Your task to perform on an android device: open app "YouTube Kids" Image 0: 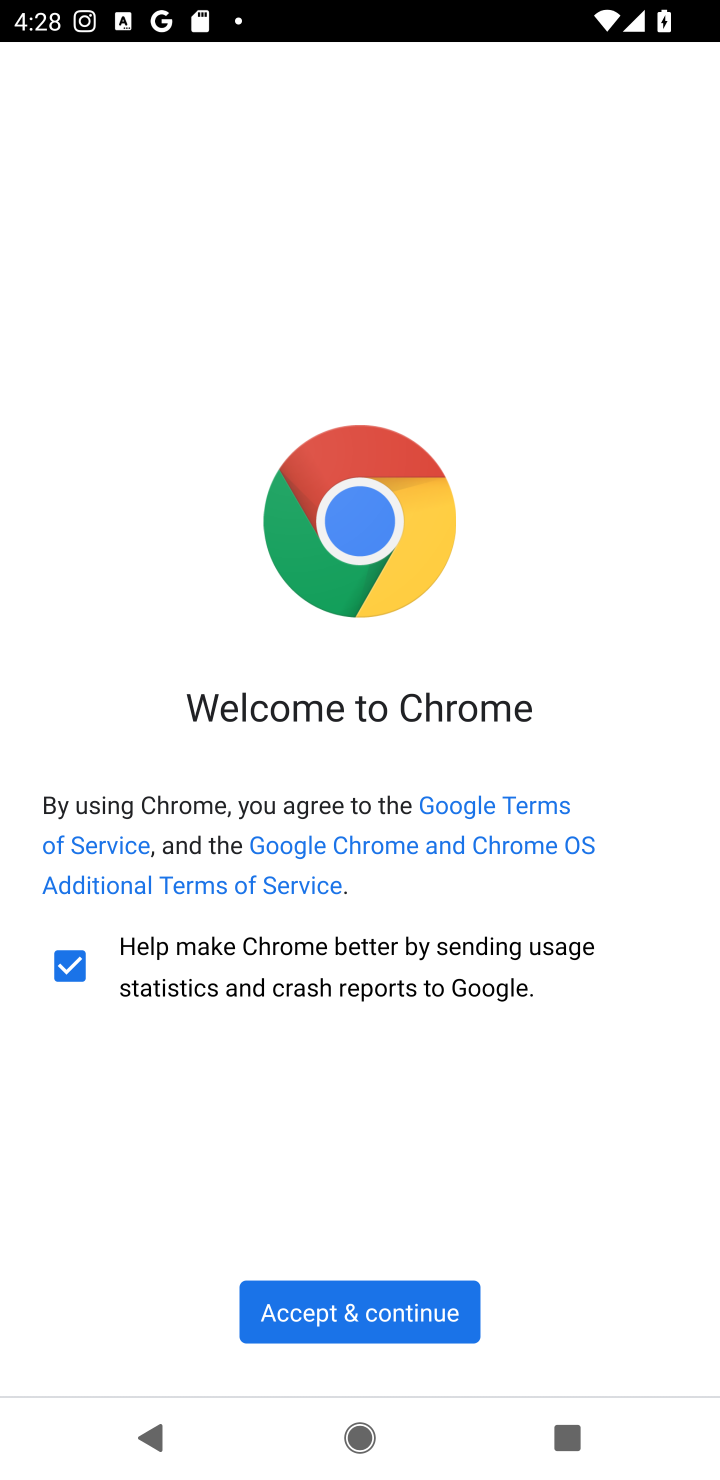
Step 0: press home button
Your task to perform on an android device: open app "YouTube Kids" Image 1: 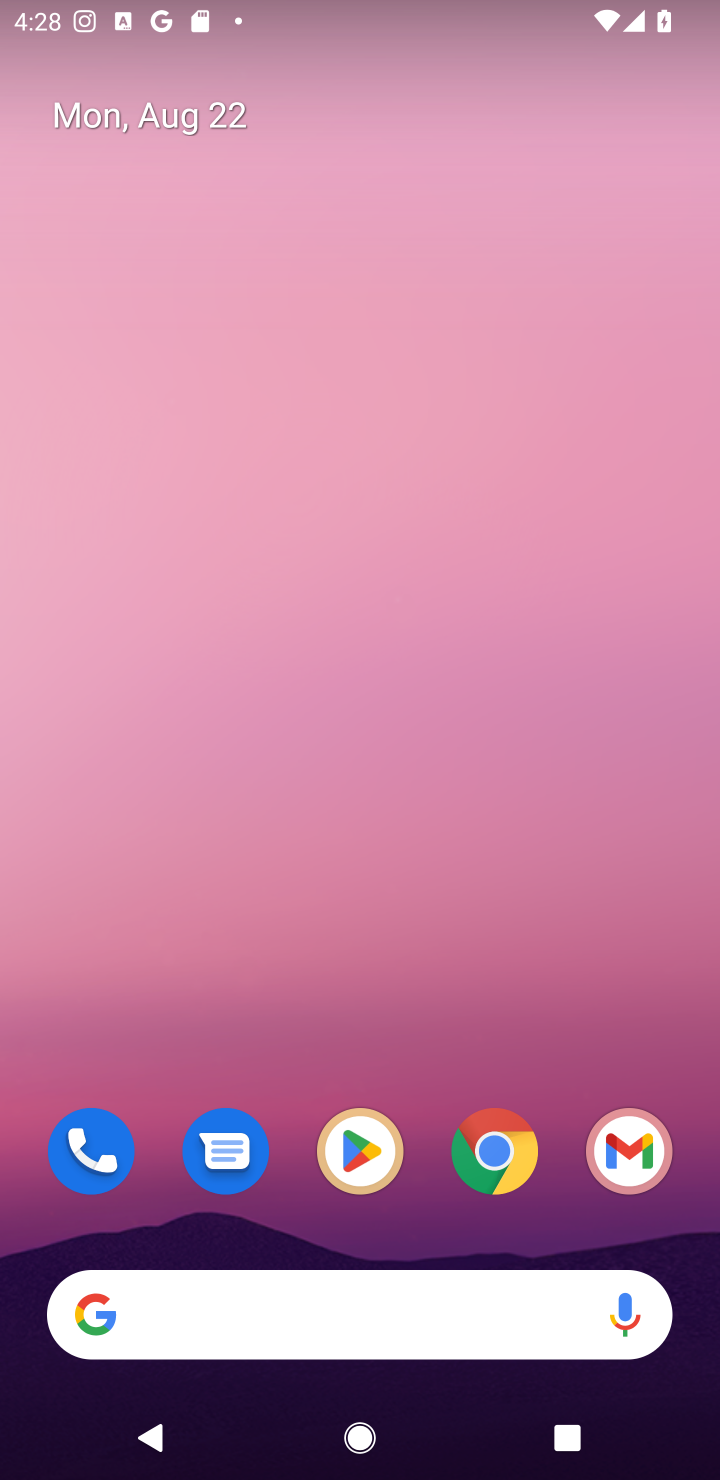
Step 1: click (347, 1153)
Your task to perform on an android device: open app "YouTube Kids" Image 2: 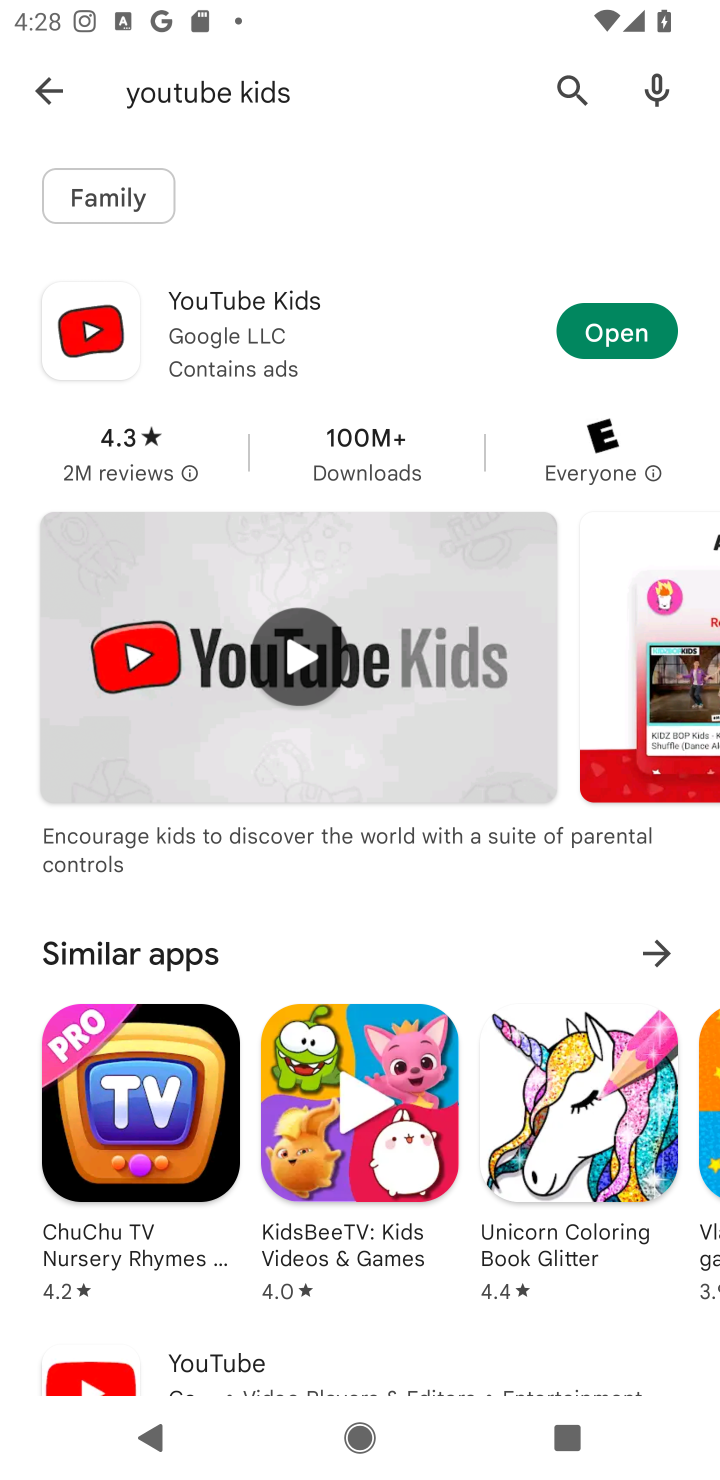
Step 2: click (560, 77)
Your task to perform on an android device: open app "YouTube Kids" Image 3: 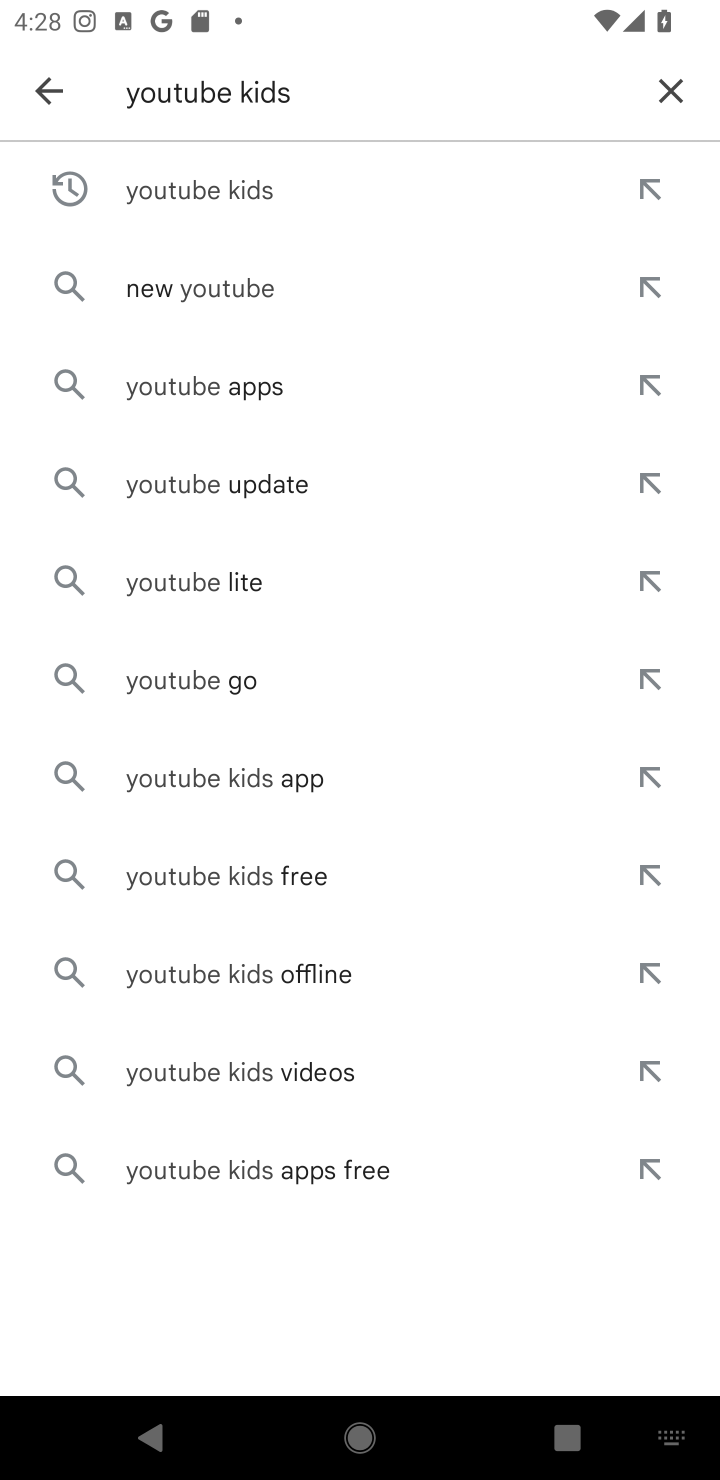
Step 3: click (658, 93)
Your task to perform on an android device: open app "YouTube Kids" Image 4: 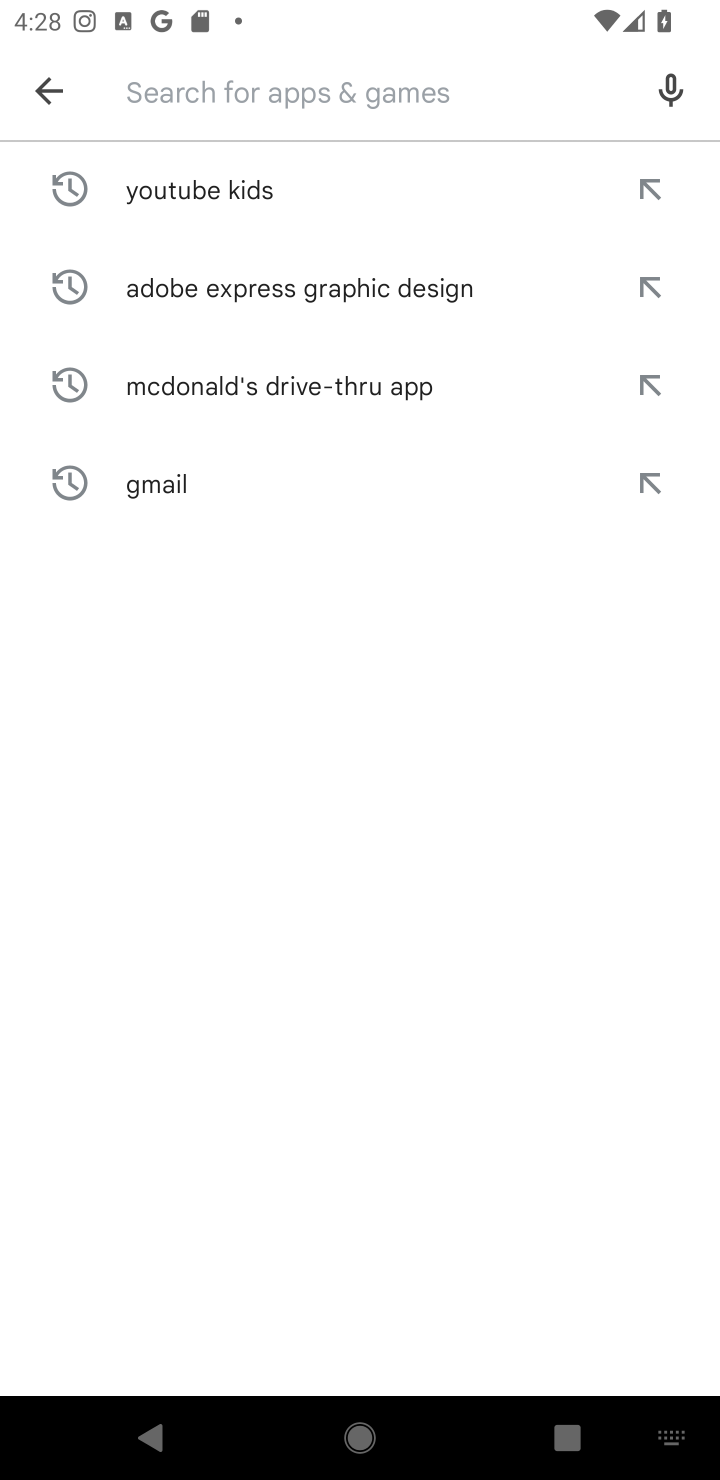
Step 4: type "YouTube Kids"
Your task to perform on an android device: open app "YouTube Kids" Image 5: 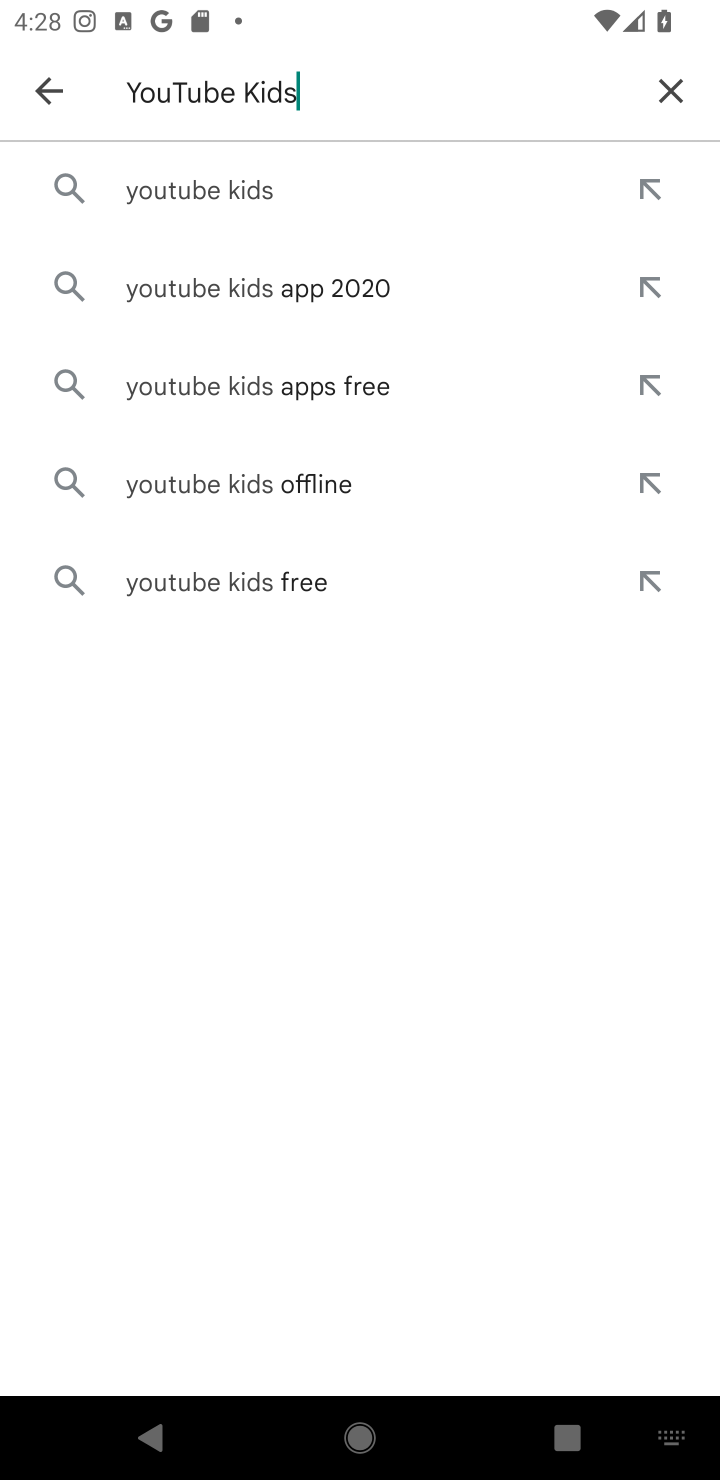
Step 5: click (196, 181)
Your task to perform on an android device: open app "YouTube Kids" Image 6: 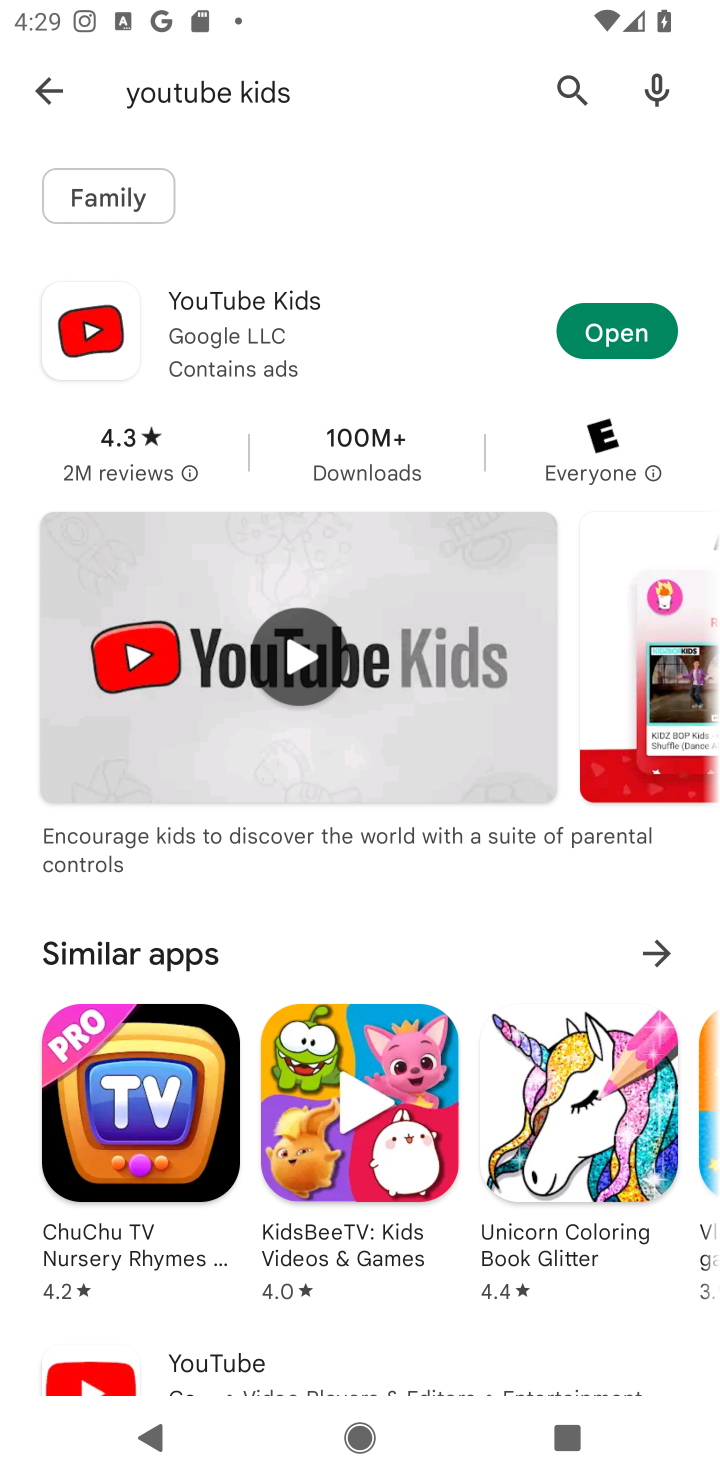
Step 6: click (623, 337)
Your task to perform on an android device: open app "YouTube Kids" Image 7: 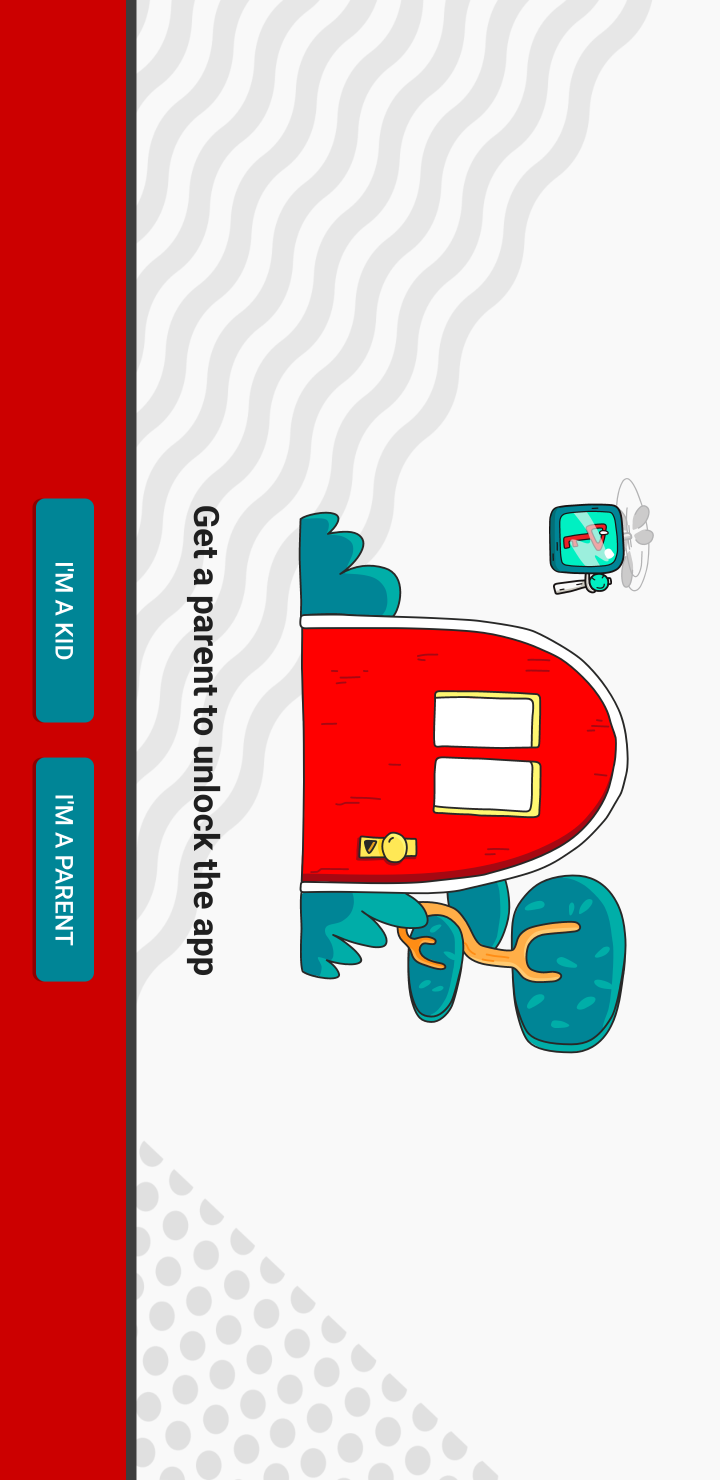
Step 7: task complete